Your task to perform on an android device: Open eBay Image 0: 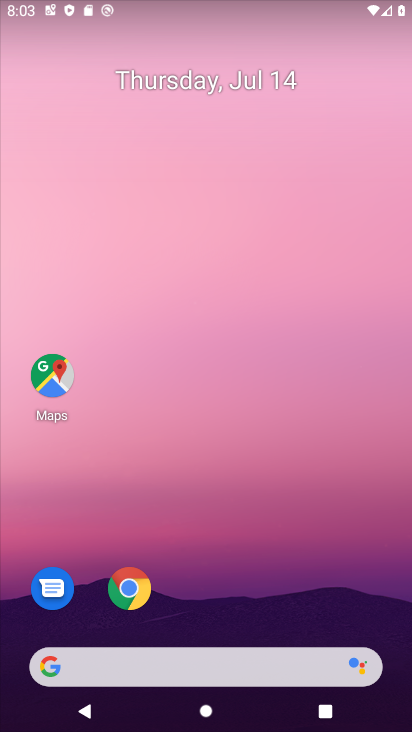
Step 0: drag from (357, 555) to (255, 104)
Your task to perform on an android device: Open eBay Image 1: 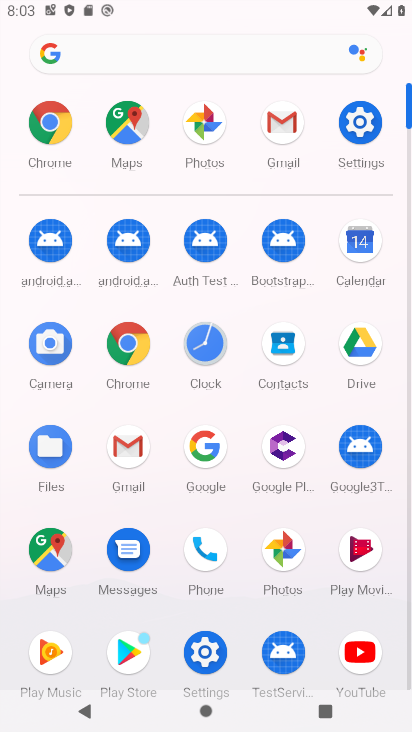
Step 1: click (128, 347)
Your task to perform on an android device: Open eBay Image 2: 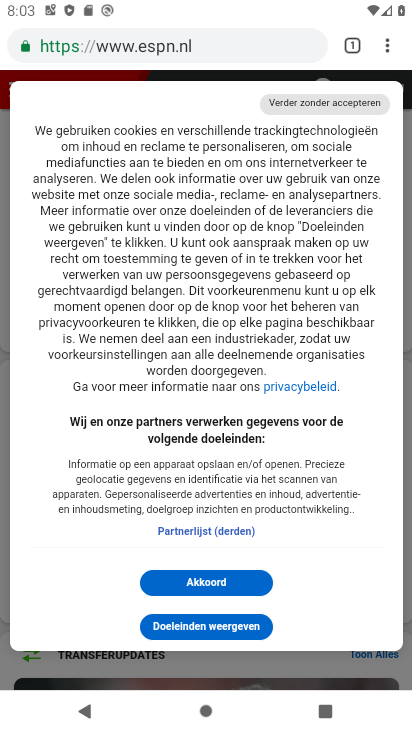
Step 2: click (194, 45)
Your task to perform on an android device: Open eBay Image 3: 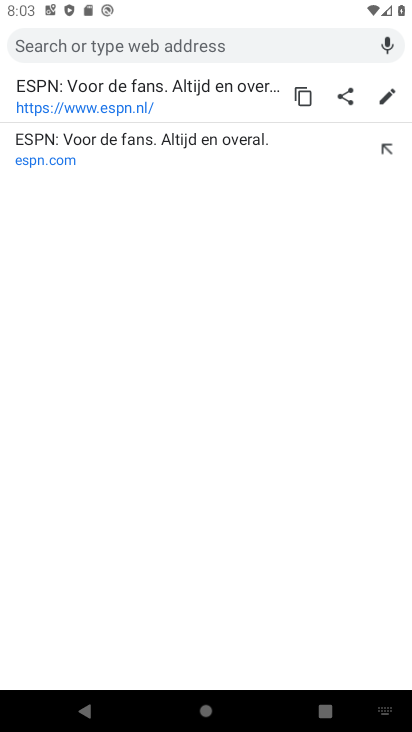
Step 3: type "ebay"
Your task to perform on an android device: Open eBay Image 4: 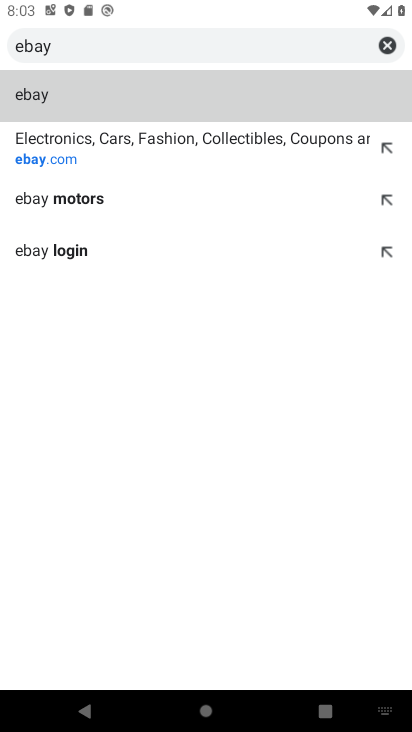
Step 4: click (41, 156)
Your task to perform on an android device: Open eBay Image 5: 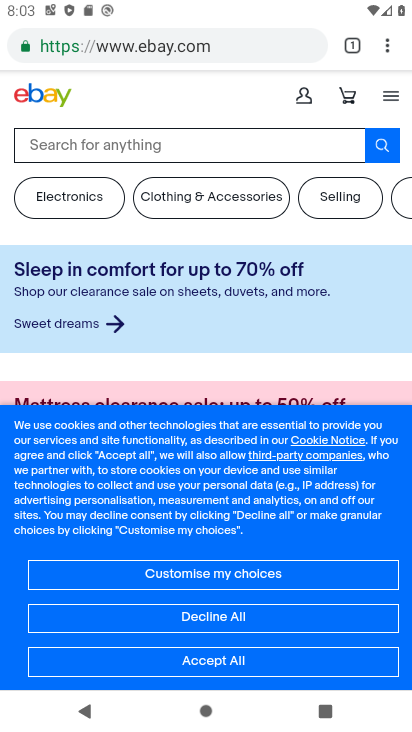
Step 5: task complete